Your task to perform on an android device: Open network settings Image 0: 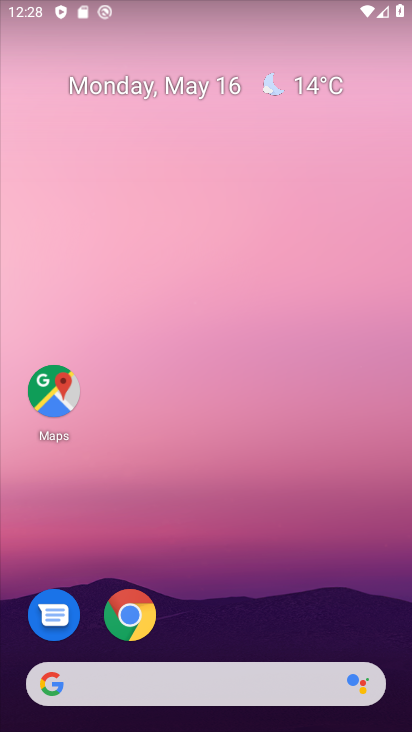
Step 0: drag from (275, 588) to (301, 163)
Your task to perform on an android device: Open network settings Image 1: 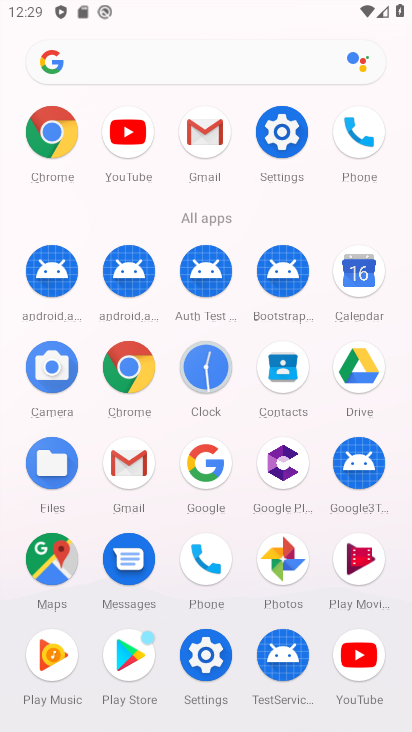
Step 1: click (210, 675)
Your task to perform on an android device: Open network settings Image 2: 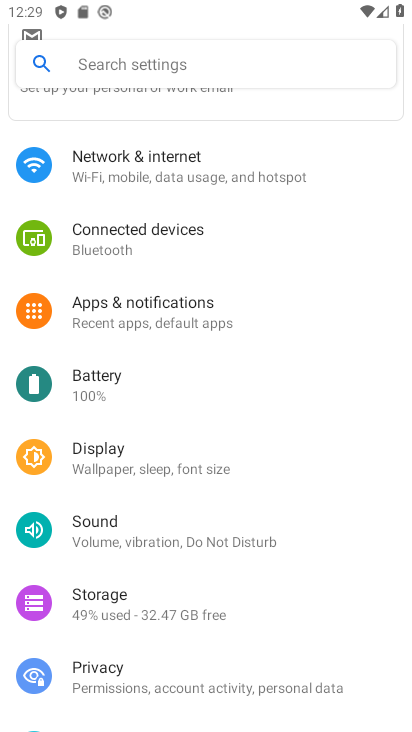
Step 2: click (181, 184)
Your task to perform on an android device: Open network settings Image 3: 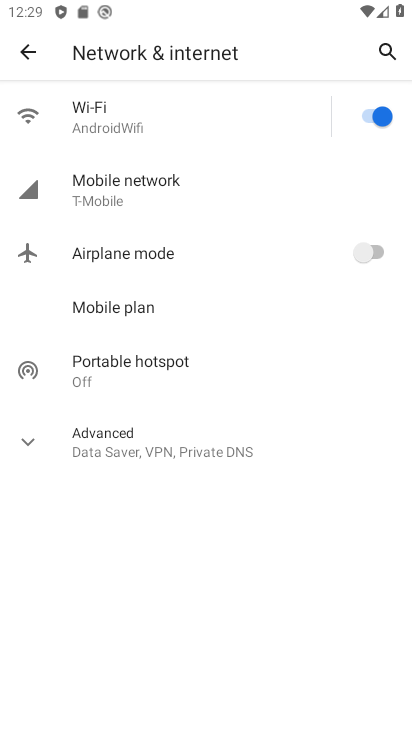
Step 3: task complete